Your task to perform on an android device: What is the recent news? Image 0: 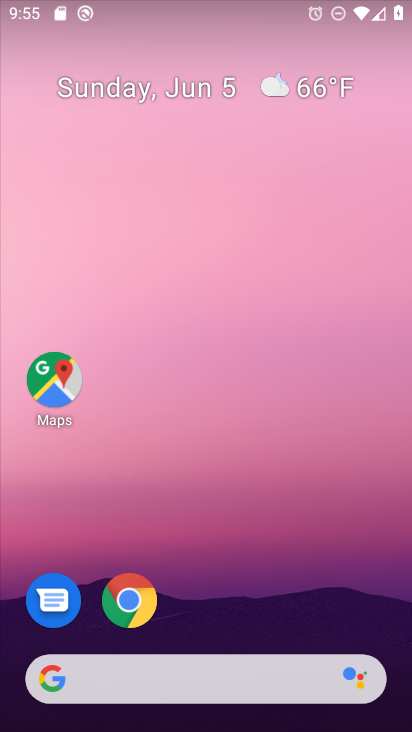
Step 0: click (391, 555)
Your task to perform on an android device: What is the recent news? Image 1: 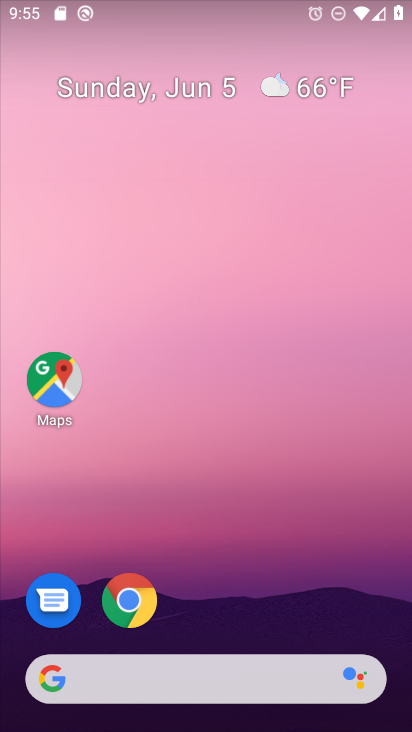
Step 1: drag from (391, 351) to (337, 106)
Your task to perform on an android device: What is the recent news? Image 2: 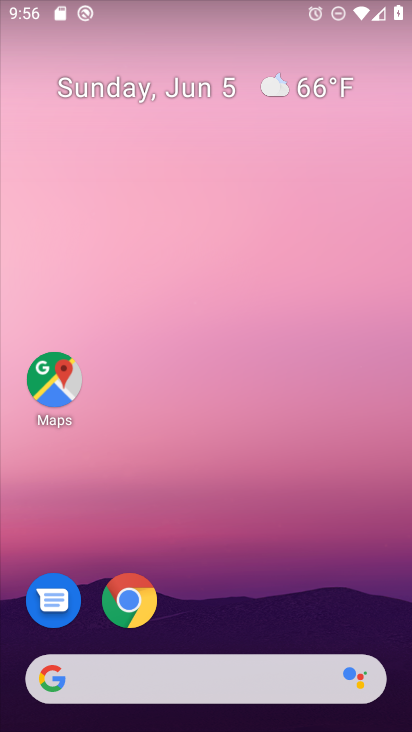
Step 2: drag from (320, 618) to (338, 194)
Your task to perform on an android device: What is the recent news? Image 3: 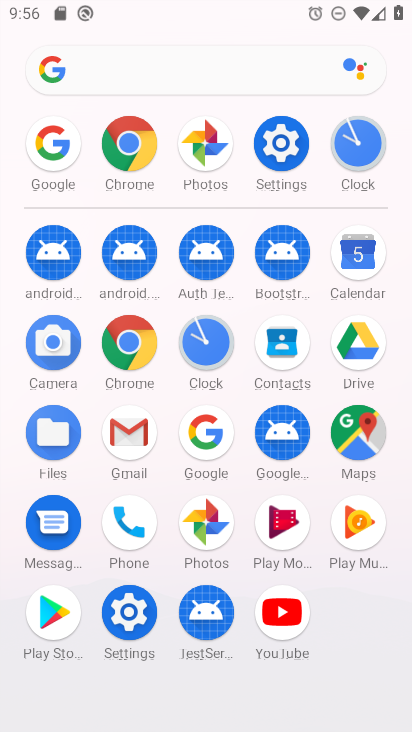
Step 3: click (208, 417)
Your task to perform on an android device: What is the recent news? Image 4: 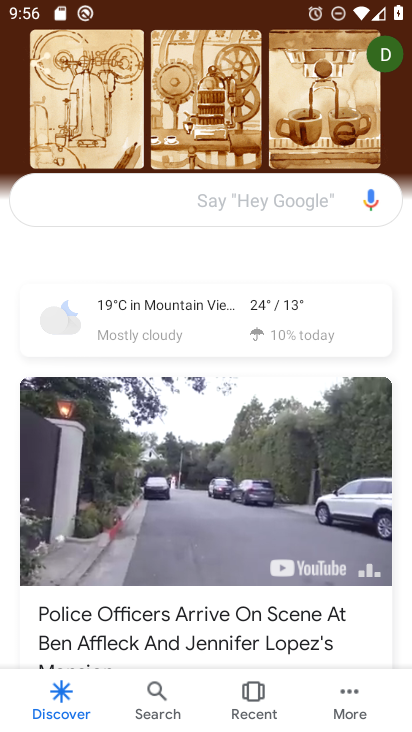
Step 4: click (214, 202)
Your task to perform on an android device: What is the recent news? Image 5: 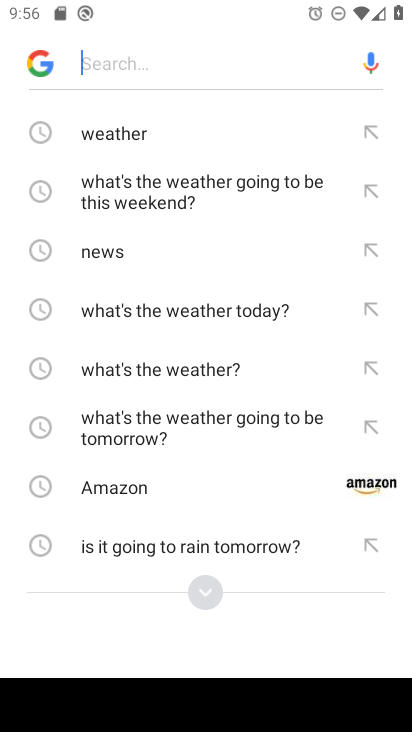
Step 5: click (209, 596)
Your task to perform on an android device: What is the recent news? Image 6: 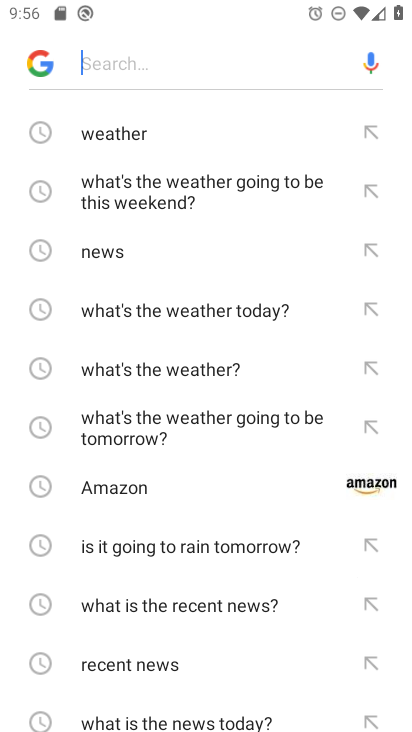
Step 6: click (170, 660)
Your task to perform on an android device: What is the recent news? Image 7: 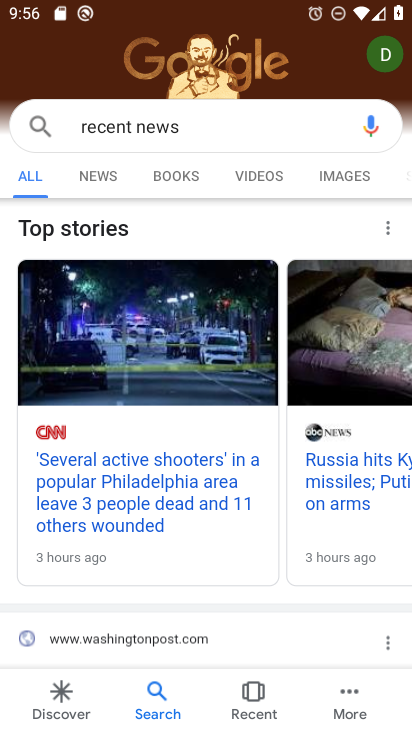
Step 7: task complete